Your task to perform on an android device: Open settings Image 0: 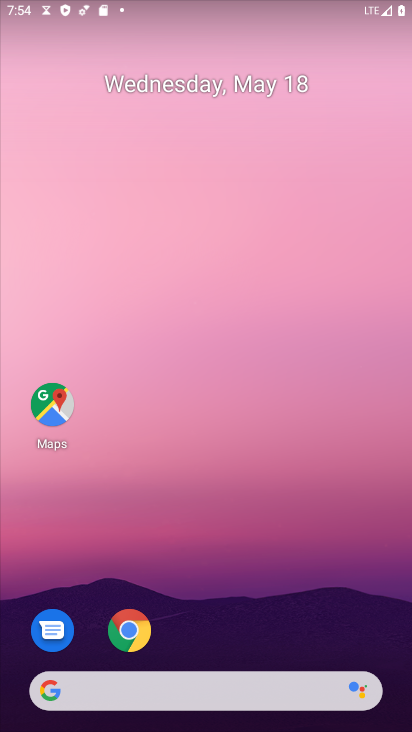
Step 0: drag from (269, 482) to (286, 5)
Your task to perform on an android device: Open settings Image 1: 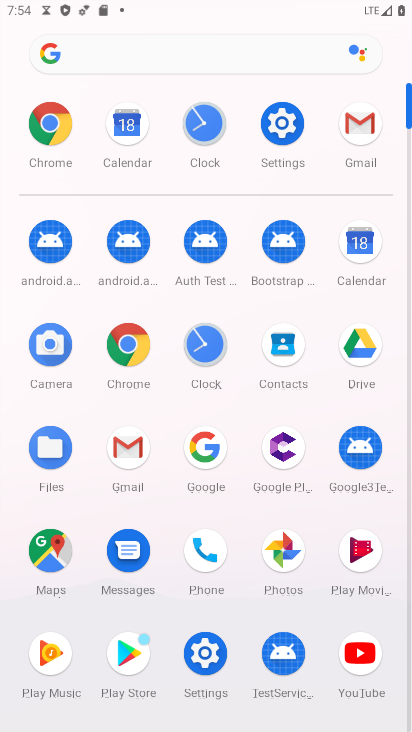
Step 1: click (284, 125)
Your task to perform on an android device: Open settings Image 2: 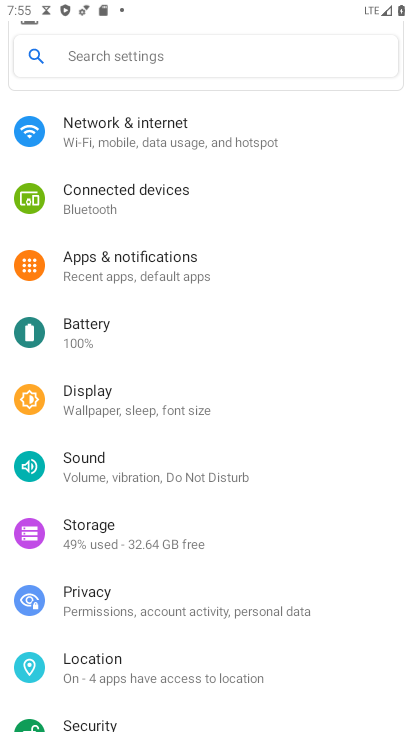
Step 2: task complete